Your task to perform on an android device: Open Chrome and go to settings Image 0: 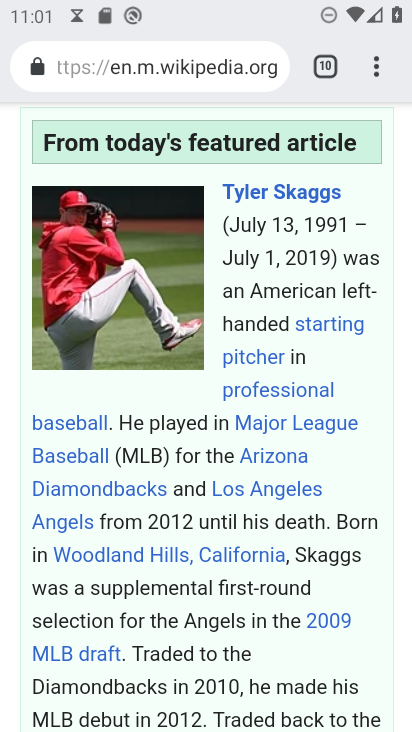
Step 0: press home button
Your task to perform on an android device: Open Chrome and go to settings Image 1: 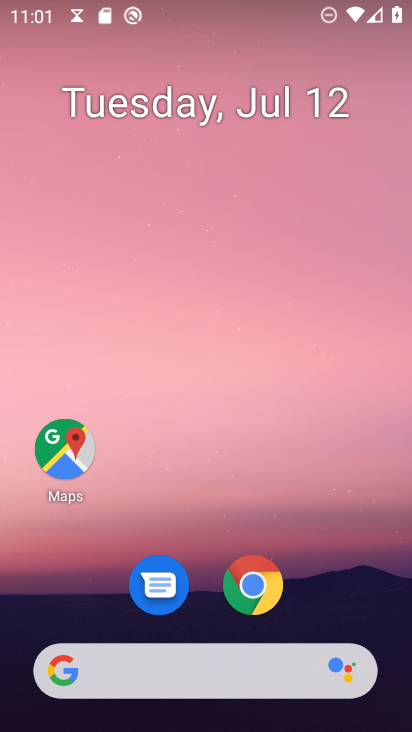
Step 1: click (250, 594)
Your task to perform on an android device: Open Chrome and go to settings Image 2: 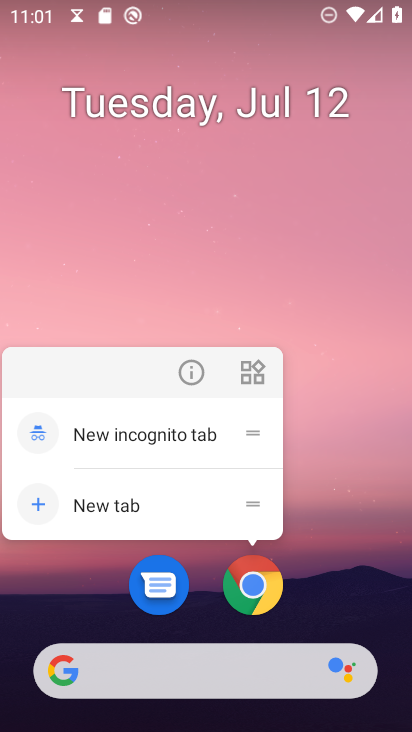
Step 2: click (250, 587)
Your task to perform on an android device: Open Chrome and go to settings Image 3: 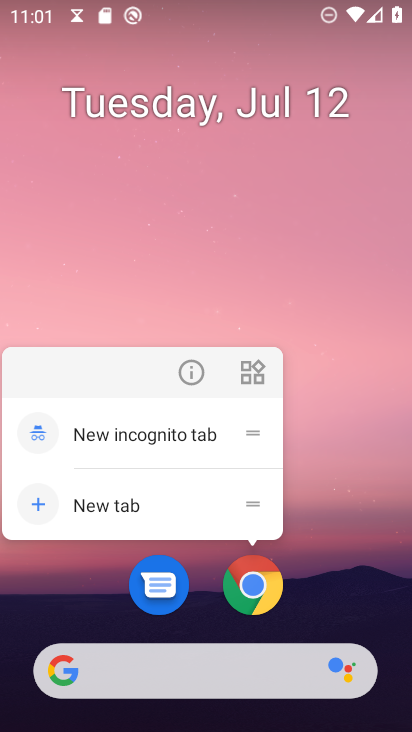
Step 3: click (250, 587)
Your task to perform on an android device: Open Chrome and go to settings Image 4: 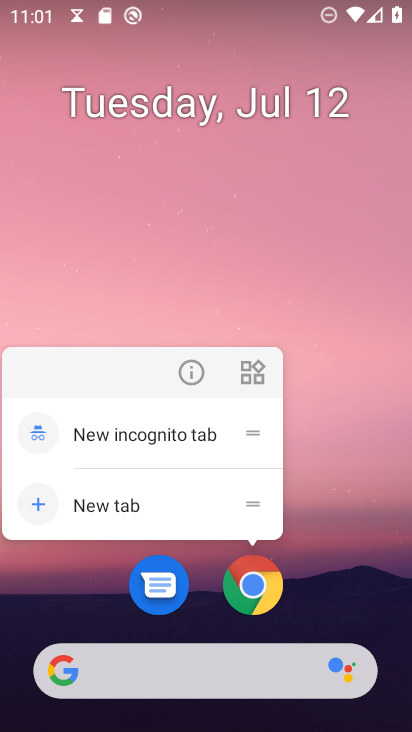
Step 4: click (259, 588)
Your task to perform on an android device: Open Chrome and go to settings Image 5: 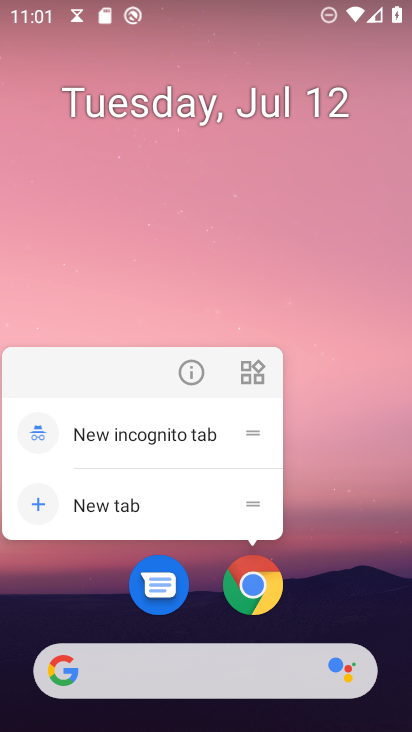
Step 5: click (259, 589)
Your task to perform on an android device: Open Chrome and go to settings Image 6: 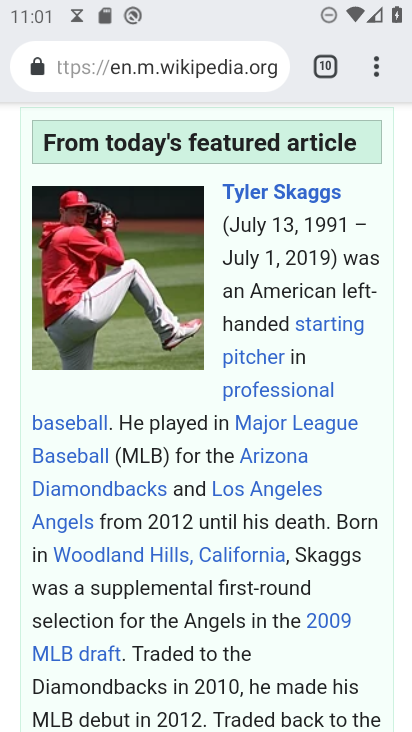
Step 6: task complete